Your task to perform on an android device: Search for "logitech g903" on amazon, select the first entry, add it to the cart, then select checkout. Image 0: 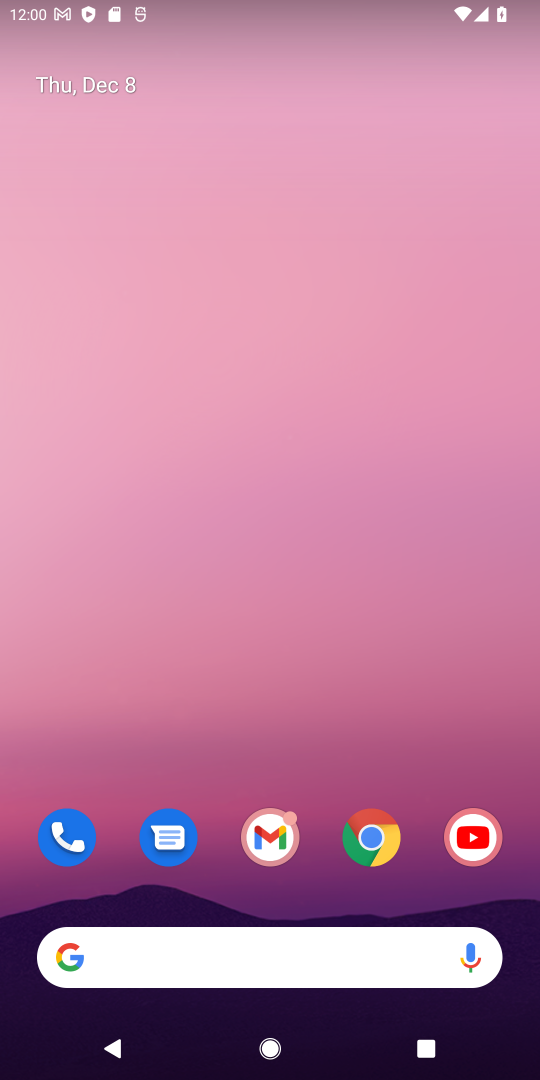
Step 0: click (362, 843)
Your task to perform on an android device: Search for "logitech g903" on amazon, select the first entry, add it to the cart, then select checkout. Image 1: 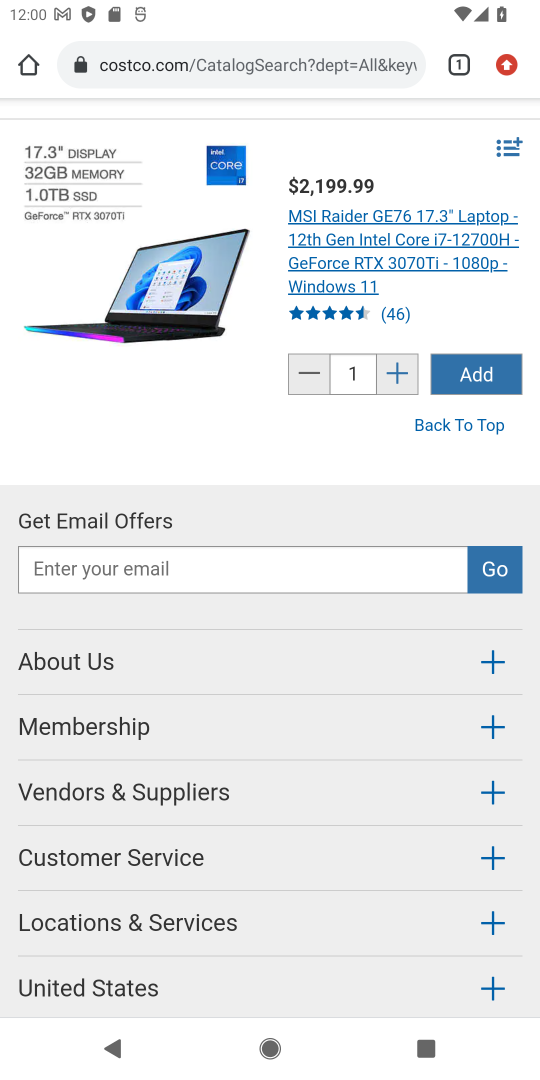
Step 1: click (191, 76)
Your task to perform on an android device: Search for "logitech g903" on amazon, select the first entry, add it to the cart, then select checkout. Image 2: 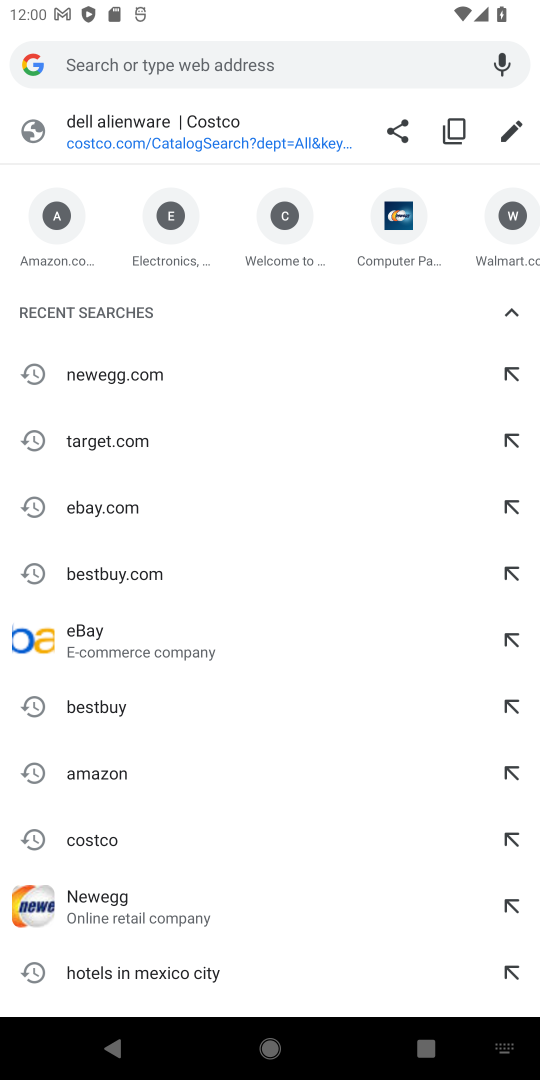
Step 2: type "amazon.com"
Your task to perform on an android device: Search for "logitech g903" on amazon, select the first entry, add it to the cart, then select checkout. Image 3: 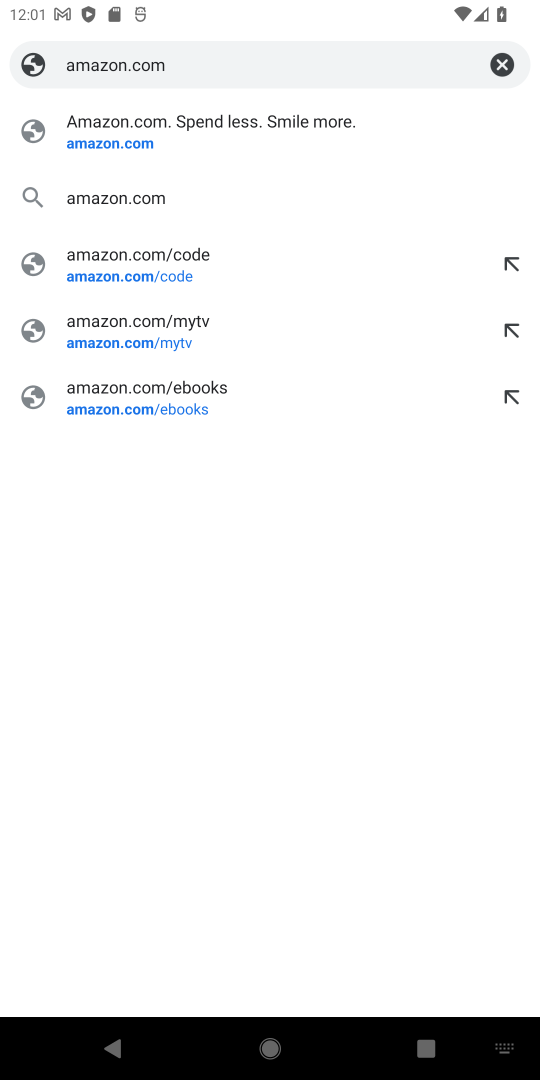
Step 3: press enter
Your task to perform on an android device: Search for "logitech g903" on amazon, select the first entry, add it to the cart, then select checkout. Image 4: 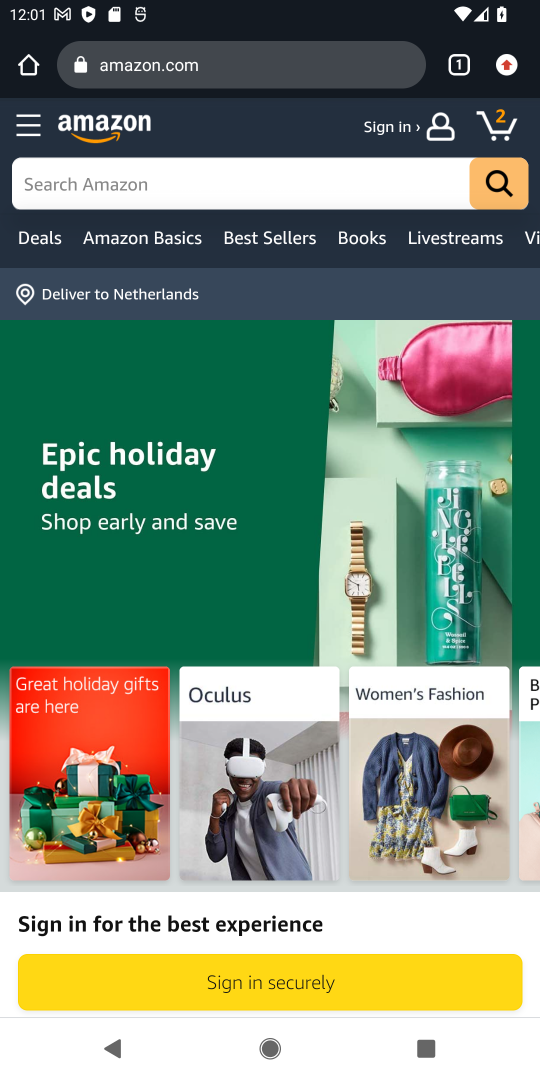
Step 4: click (238, 175)
Your task to perform on an android device: Search for "logitech g903" on amazon, select the first entry, add it to the cart, then select checkout. Image 5: 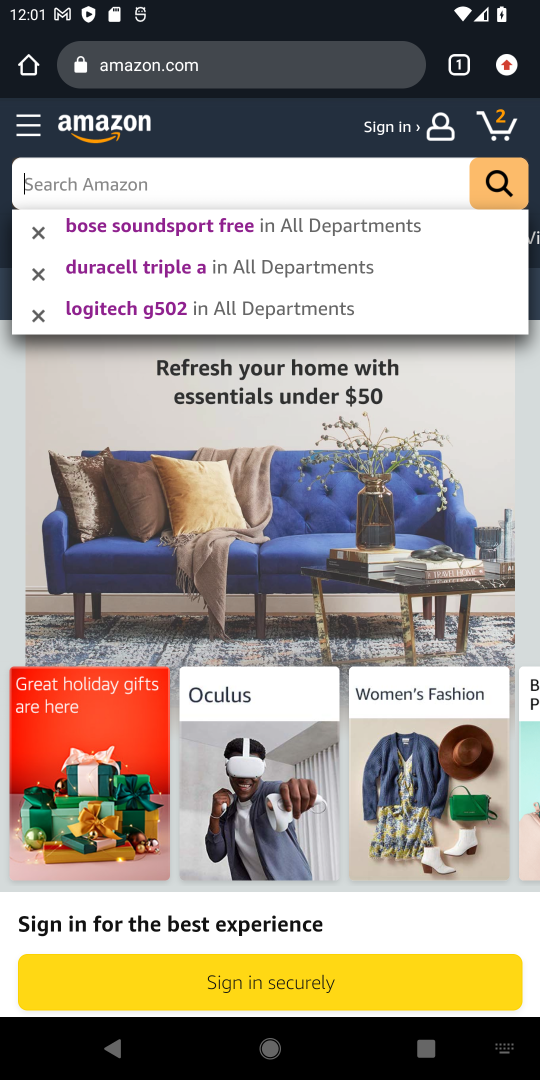
Step 5: type "logitech g903"
Your task to perform on an android device: Search for "logitech g903" on amazon, select the first entry, add it to the cart, then select checkout. Image 6: 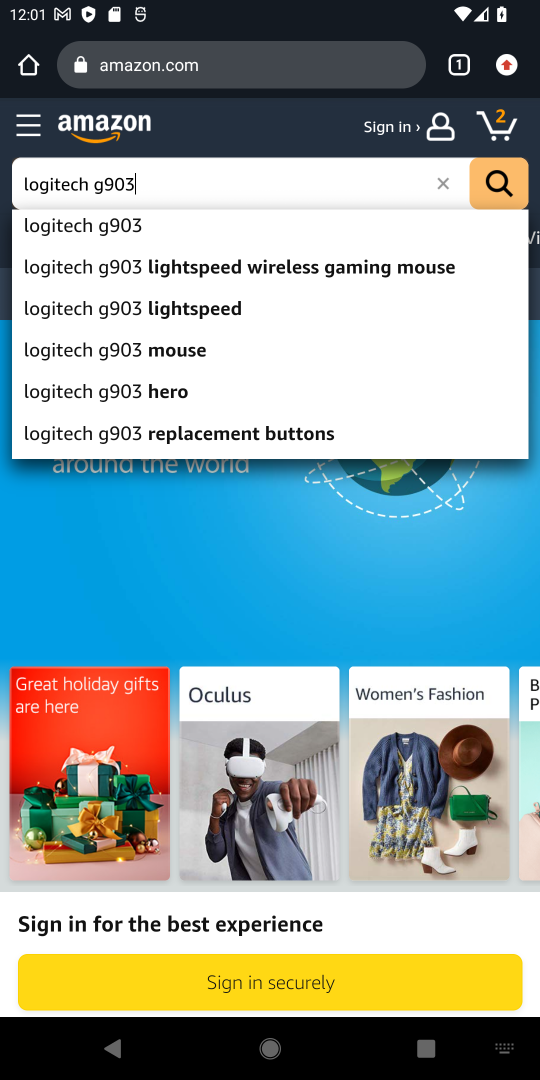
Step 6: click (507, 193)
Your task to perform on an android device: Search for "logitech g903" on amazon, select the first entry, add it to the cart, then select checkout. Image 7: 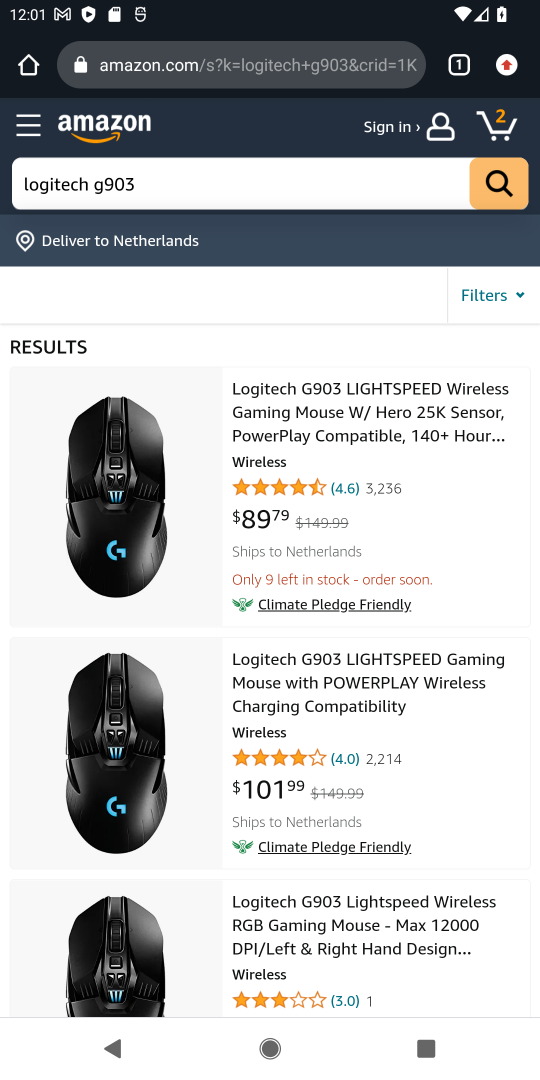
Step 7: click (275, 434)
Your task to perform on an android device: Search for "logitech g903" on amazon, select the first entry, add it to the cart, then select checkout. Image 8: 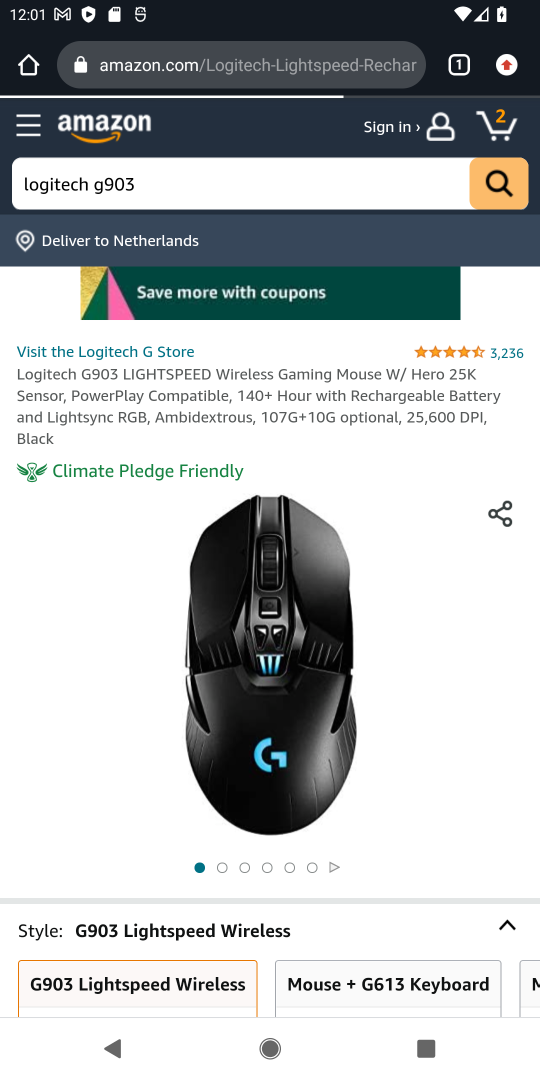
Step 8: drag from (403, 864) to (453, 296)
Your task to perform on an android device: Search for "logitech g903" on amazon, select the first entry, add it to the cart, then select checkout. Image 9: 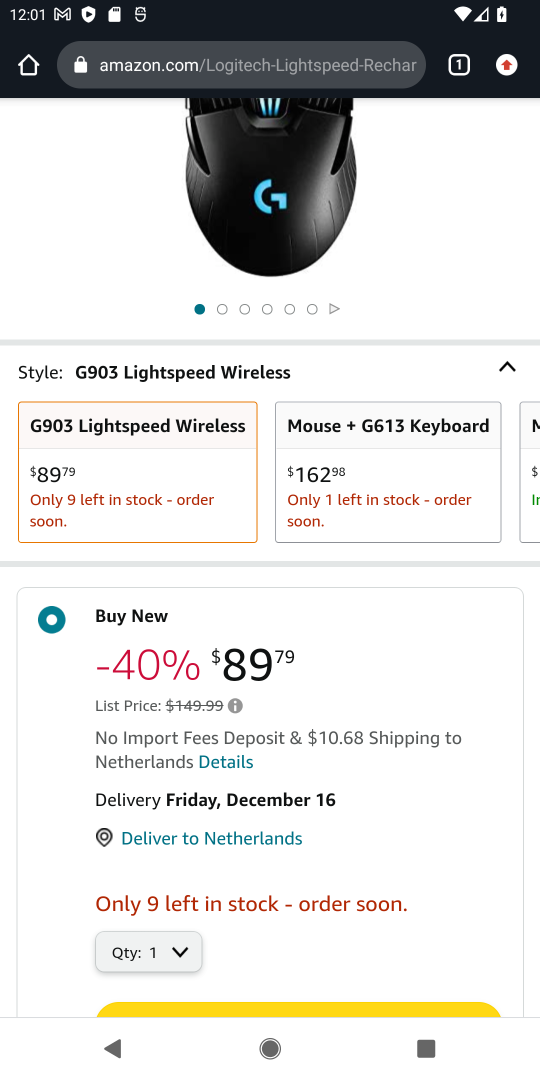
Step 9: drag from (365, 831) to (395, 556)
Your task to perform on an android device: Search for "logitech g903" on amazon, select the first entry, add it to the cart, then select checkout. Image 10: 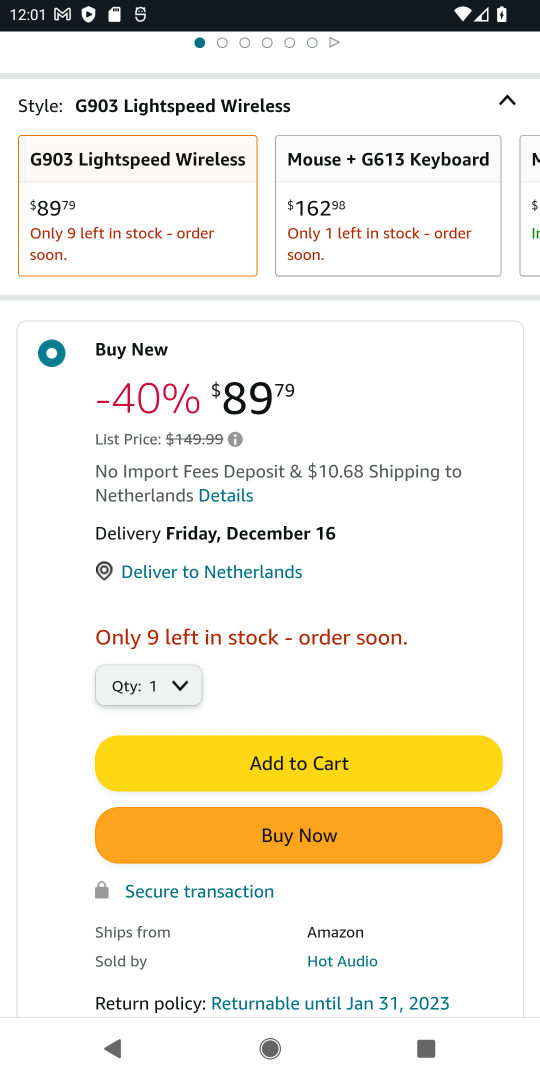
Step 10: click (337, 775)
Your task to perform on an android device: Search for "logitech g903" on amazon, select the first entry, add it to the cart, then select checkout. Image 11: 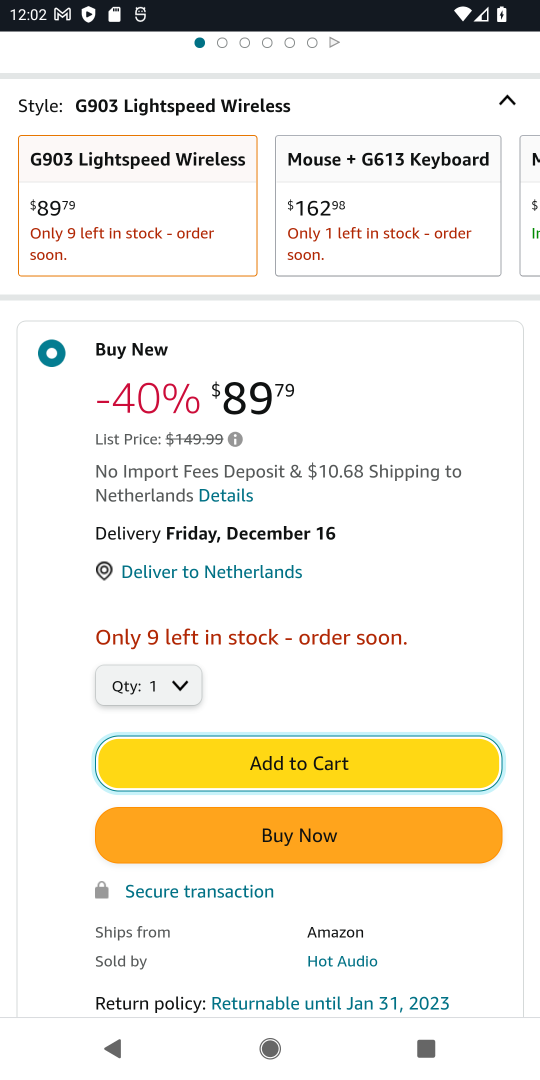
Step 11: click (279, 765)
Your task to perform on an android device: Search for "logitech g903" on amazon, select the first entry, add it to the cart, then select checkout. Image 12: 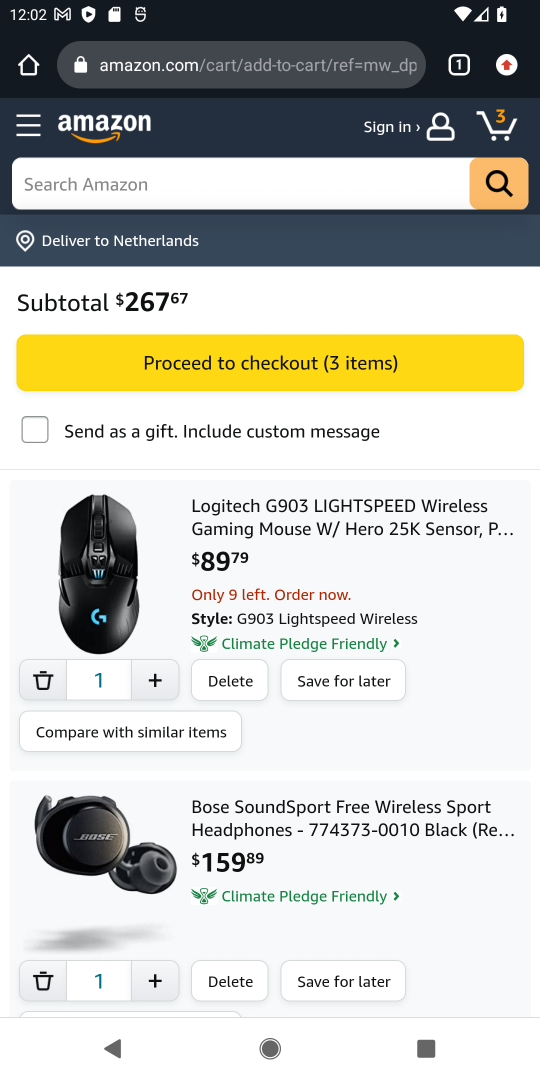
Step 12: click (253, 360)
Your task to perform on an android device: Search for "logitech g903" on amazon, select the first entry, add it to the cart, then select checkout. Image 13: 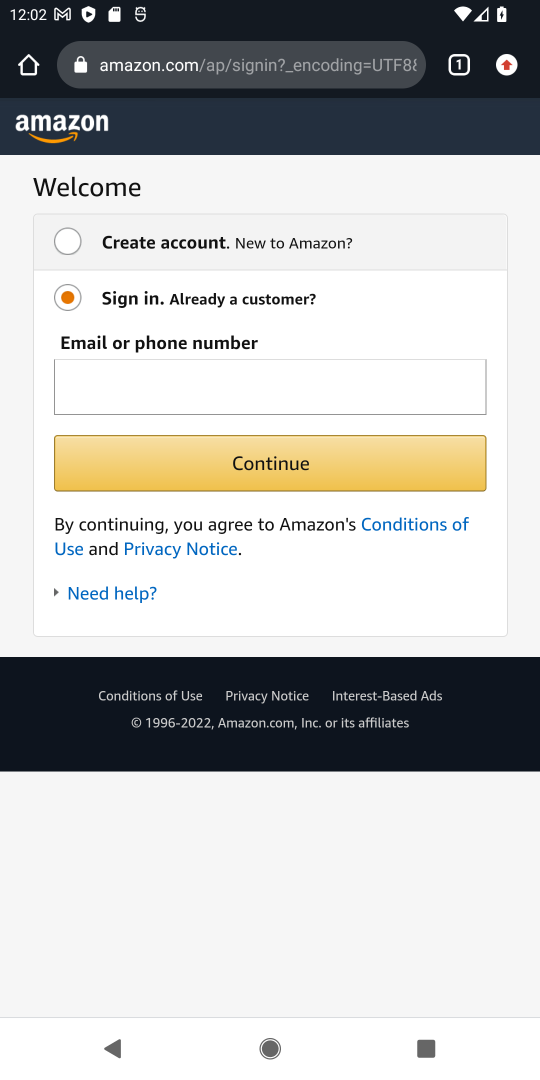
Step 13: task complete